Your task to perform on an android device: Open Chrome and go to the settings page Image 0: 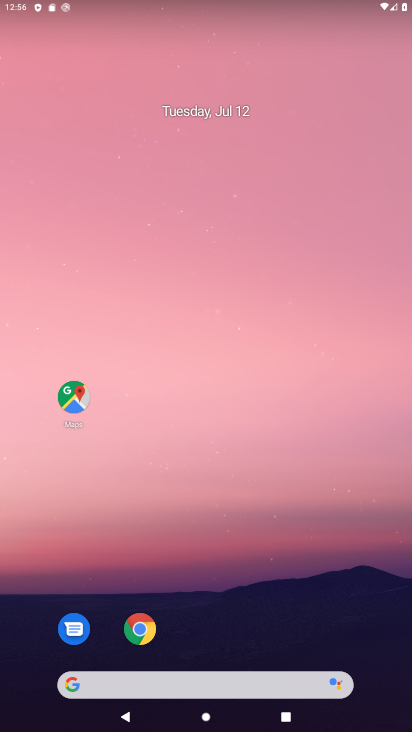
Step 0: press home button
Your task to perform on an android device: Open Chrome and go to the settings page Image 1: 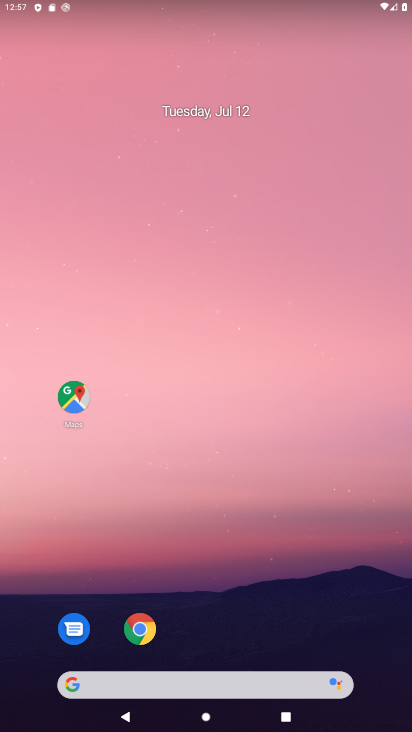
Step 1: drag from (208, 649) to (262, 127)
Your task to perform on an android device: Open Chrome and go to the settings page Image 2: 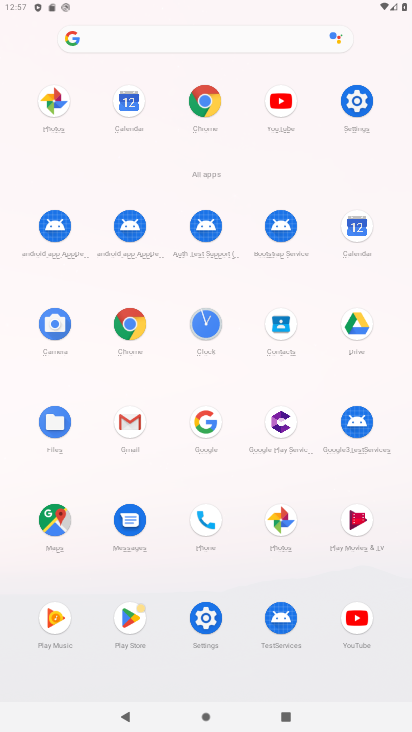
Step 2: click (207, 93)
Your task to perform on an android device: Open Chrome and go to the settings page Image 3: 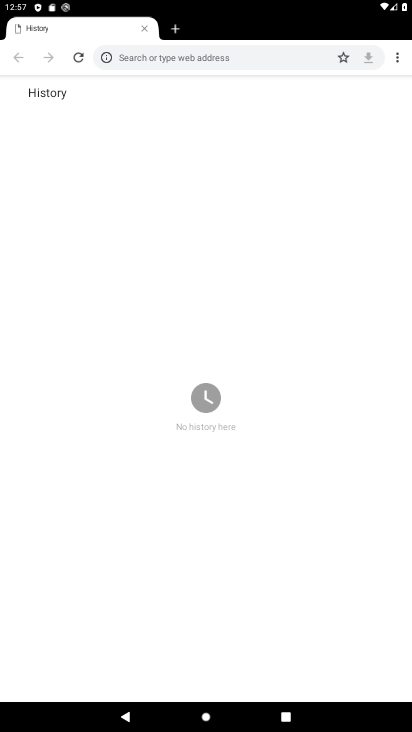
Step 3: click (178, 25)
Your task to perform on an android device: Open Chrome and go to the settings page Image 4: 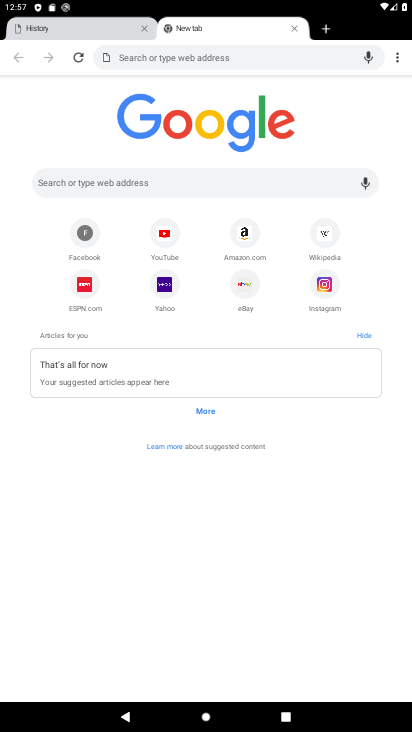
Step 4: click (398, 56)
Your task to perform on an android device: Open Chrome and go to the settings page Image 5: 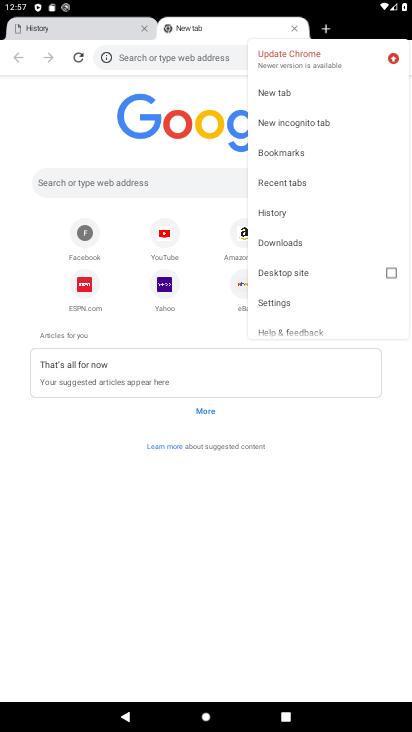
Step 5: click (299, 302)
Your task to perform on an android device: Open Chrome and go to the settings page Image 6: 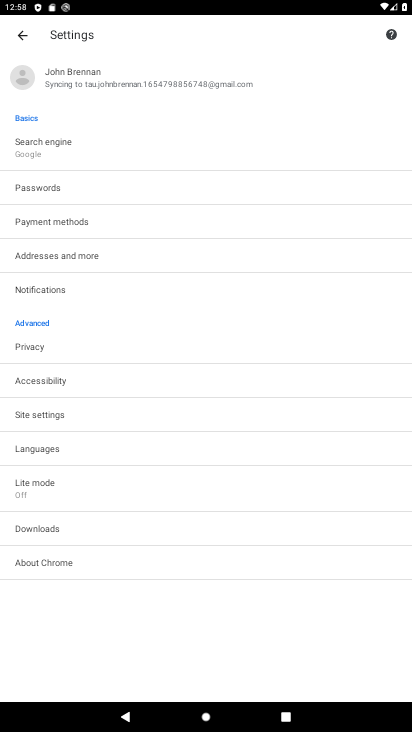
Step 6: task complete